Your task to perform on an android device: Open Google Chrome and click the shortcut for Amazon.com Image 0: 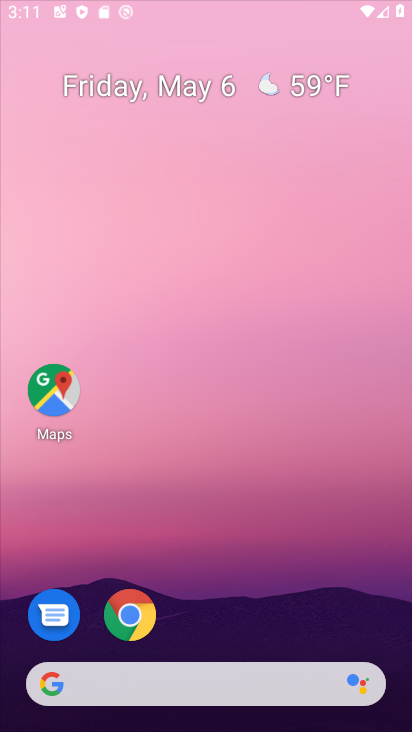
Step 0: click (313, 270)
Your task to perform on an android device: Open Google Chrome and click the shortcut for Amazon.com Image 1: 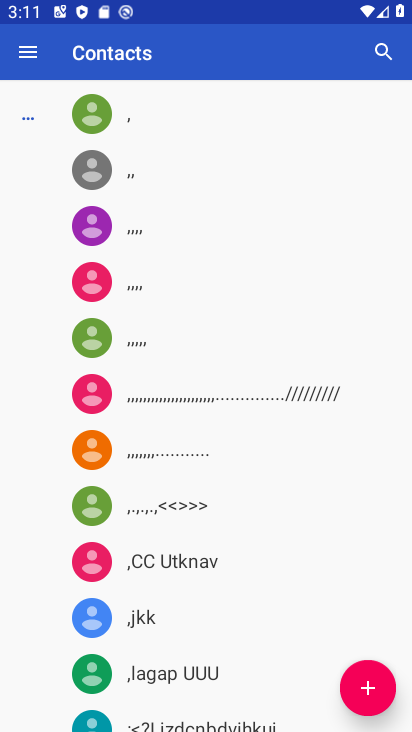
Step 1: press home button
Your task to perform on an android device: Open Google Chrome and click the shortcut for Amazon.com Image 2: 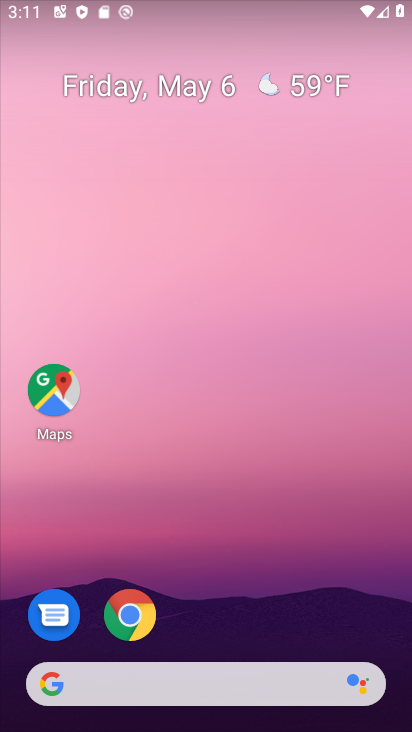
Step 2: drag from (269, 632) to (263, 229)
Your task to perform on an android device: Open Google Chrome and click the shortcut for Amazon.com Image 3: 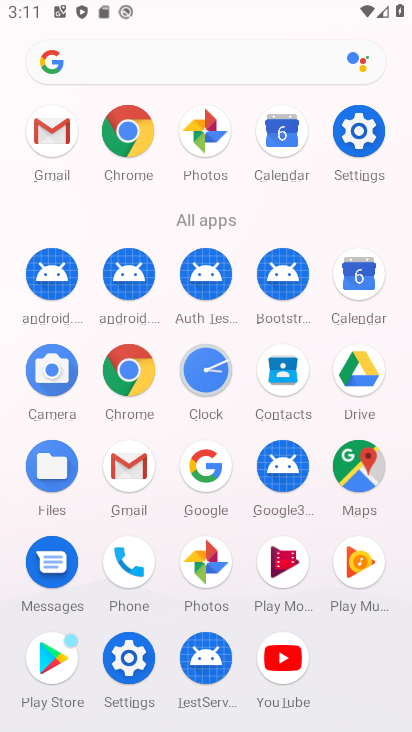
Step 3: click (133, 374)
Your task to perform on an android device: Open Google Chrome and click the shortcut for Amazon.com Image 4: 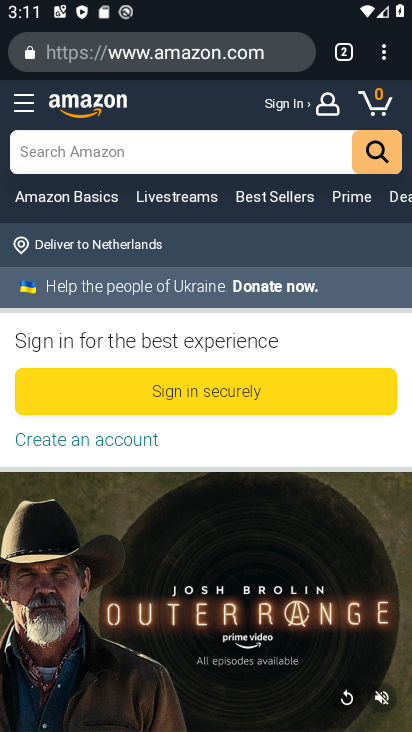
Step 4: task complete